Your task to perform on an android device: check google app version Image 0: 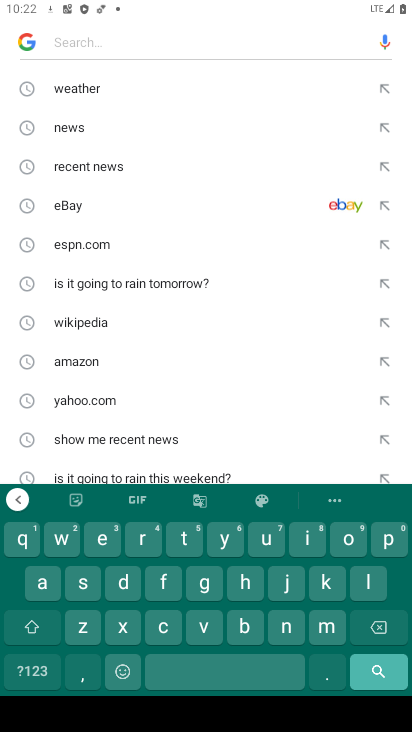
Step 0: press home button
Your task to perform on an android device: check google app version Image 1: 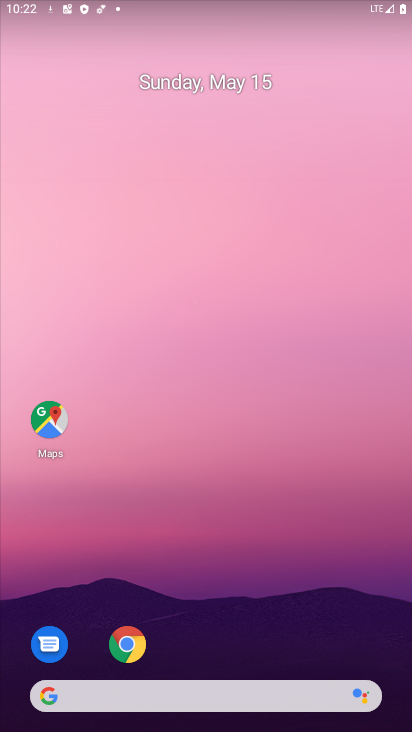
Step 1: drag from (250, 724) to (318, 302)
Your task to perform on an android device: check google app version Image 2: 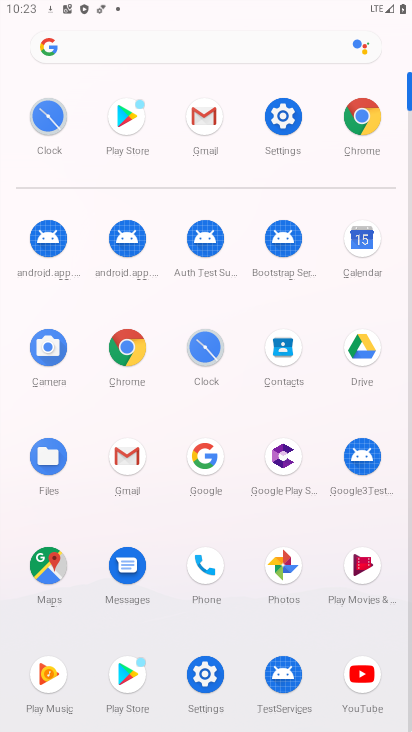
Step 2: click (347, 117)
Your task to perform on an android device: check google app version Image 3: 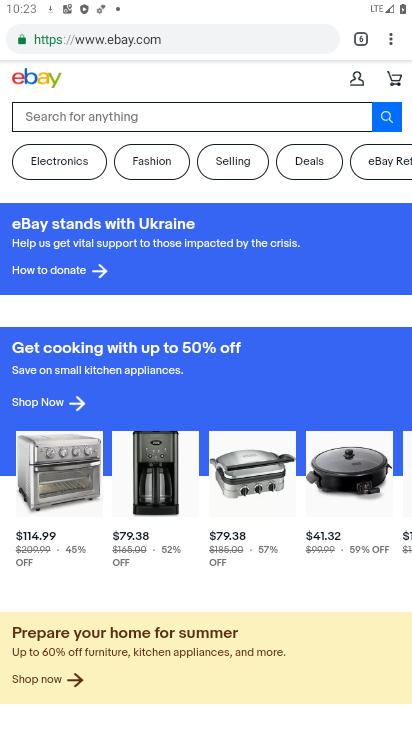
Step 3: click (384, 48)
Your task to perform on an android device: check google app version Image 4: 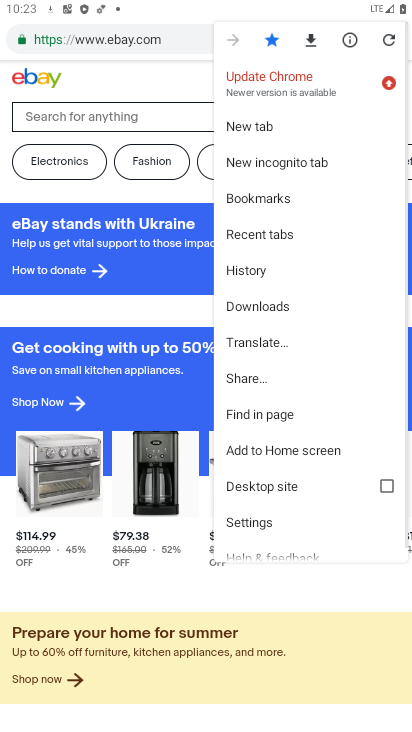
Step 4: click (276, 521)
Your task to perform on an android device: check google app version Image 5: 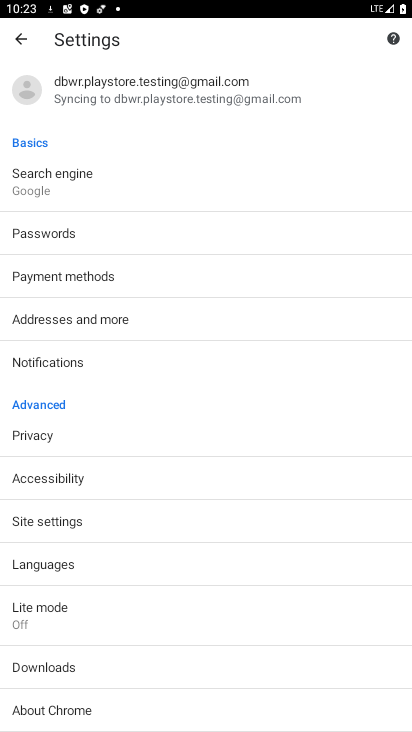
Step 5: drag from (161, 590) to (169, 282)
Your task to perform on an android device: check google app version Image 6: 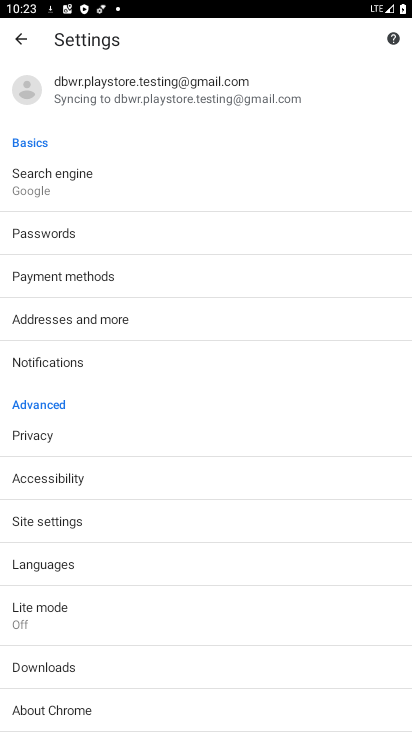
Step 6: click (57, 712)
Your task to perform on an android device: check google app version Image 7: 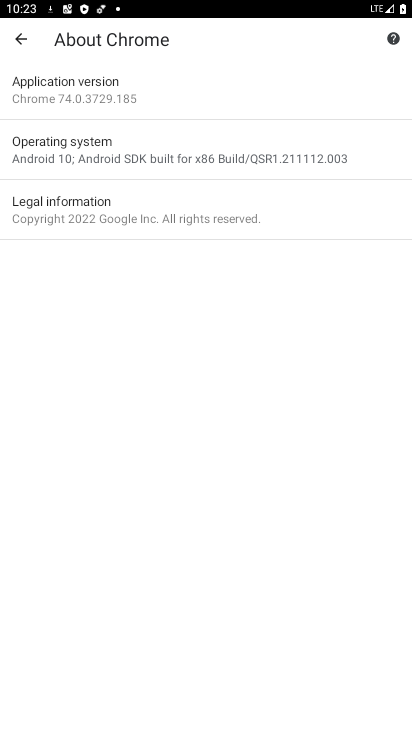
Step 7: click (162, 98)
Your task to perform on an android device: check google app version Image 8: 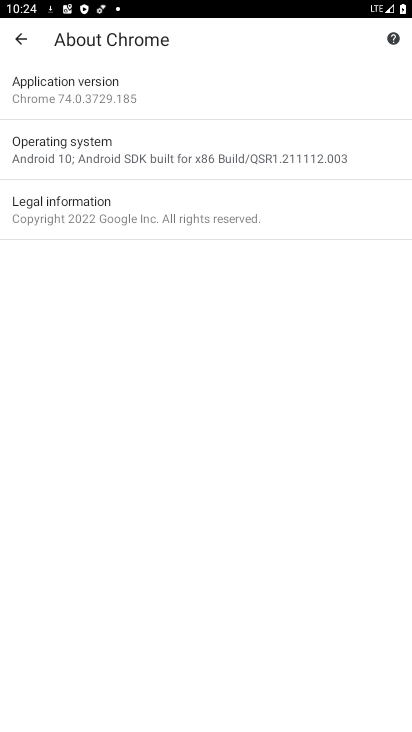
Step 8: task complete